Your task to perform on an android device: Go to Wikipedia Image 0: 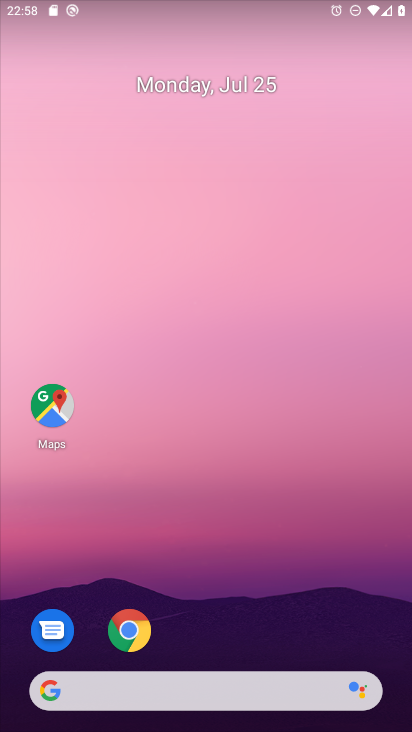
Step 0: drag from (336, 589) to (281, 30)
Your task to perform on an android device: Go to Wikipedia Image 1: 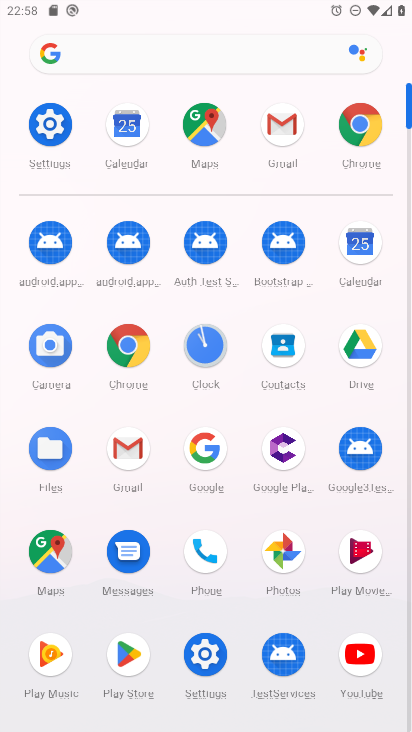
Step 1: click (356, 123)
Your task to perform on an android device: Go to Wikipedia Image 2: 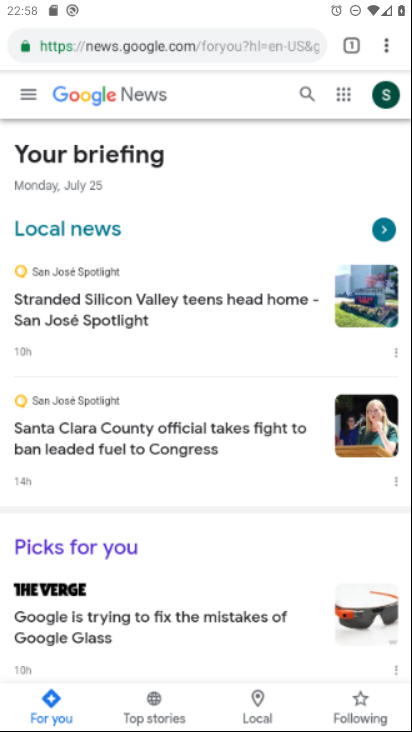
Step 2: click (189, 65)
Your task to perform on an android device: Go to Wikipedia Image 3: 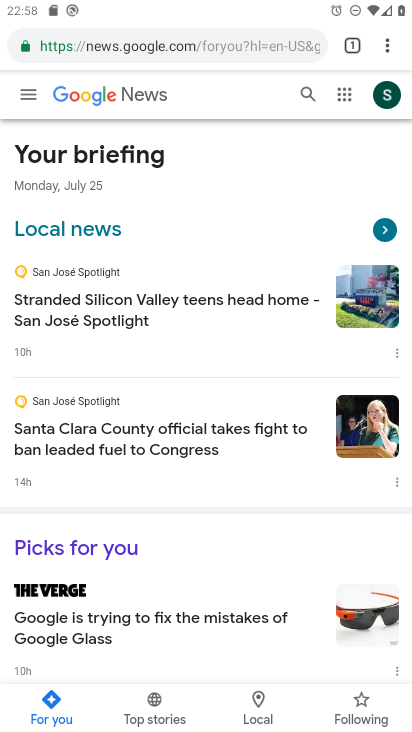
Step 3: click (198, 44)
Your task to perform on an android device: Go to Wikipedia Image 4: 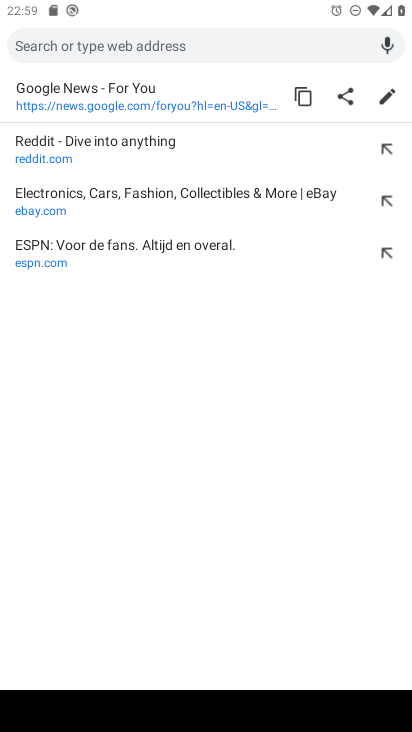
Step 4: type "wikipedia"
Your task to perform on an android device: Go to Wikipedia Image 5: 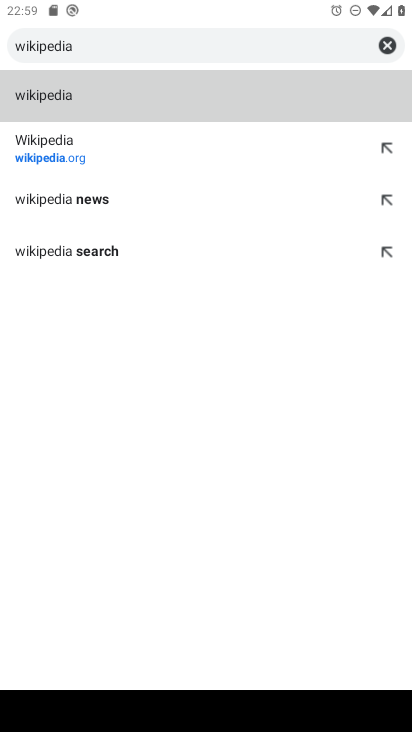
Step 5: click (47, 152)
Your task to perform on an android device: Go to Wikipedia Image 6: 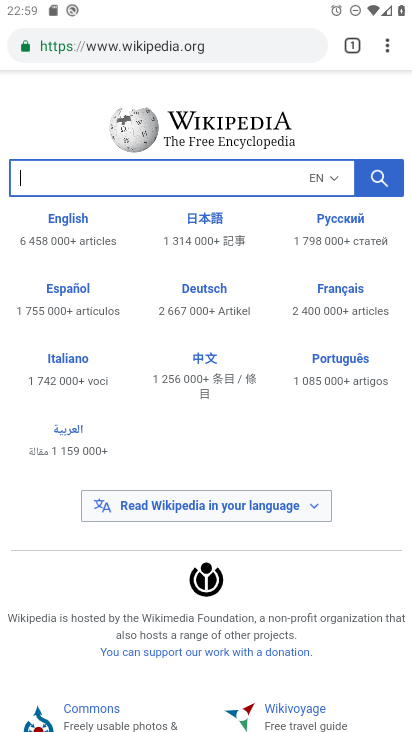
Step 6: task complete